Your task to perform on an android device: Open the web browser Image 0: 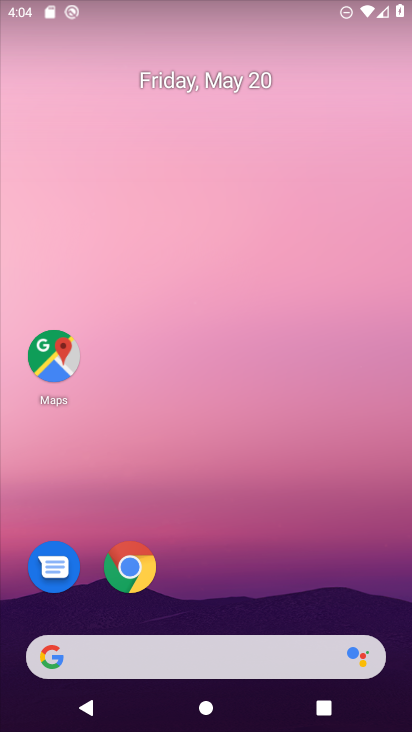
Step 0: click (126, 569)
Your task to perform on an android device: Open the web browser Image 1: 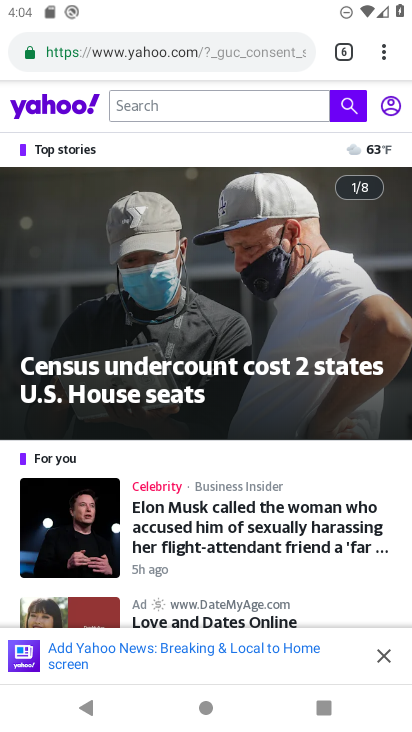
Step 1: task complete